Your task to perform on an android device: turn off notifications in google photos Image 0: 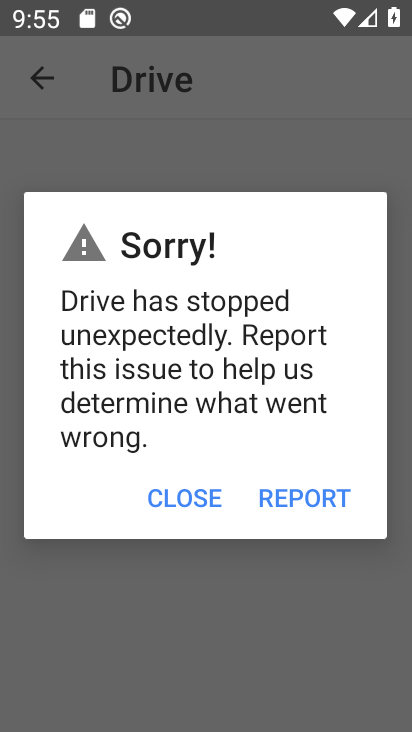
Step 0: press home button
Your task to perform on an android device: turn off notifications in google photos Image 1: 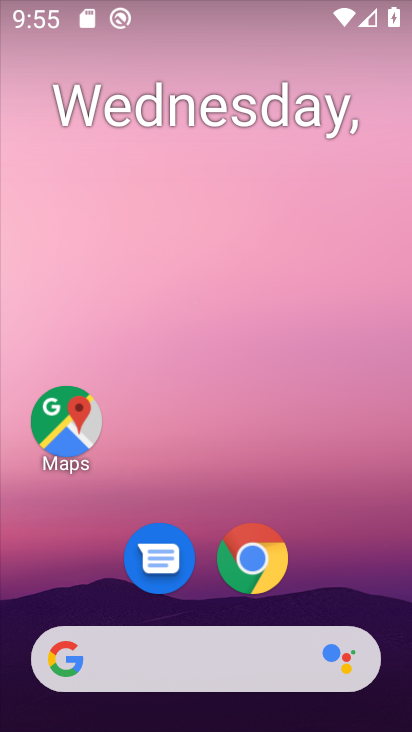
Step 1: drag from (359, 583) to (369, 214)
Your task to perform on an android device: turn off notifications in google photos Image 2: 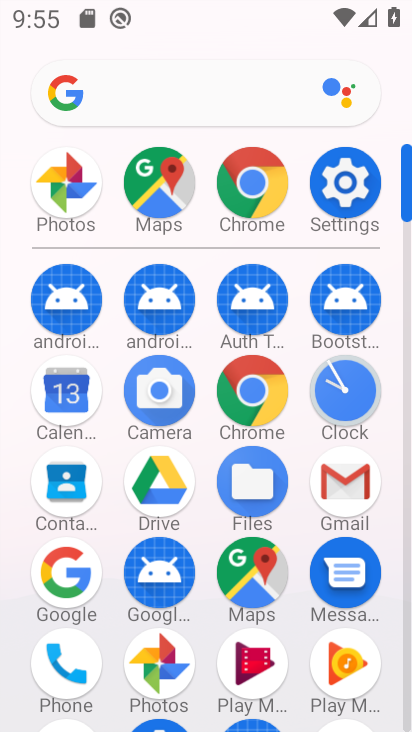
Step 2: click (166, 676)
Your task to perform on an android device: turn off notifications in google photos Image 3: 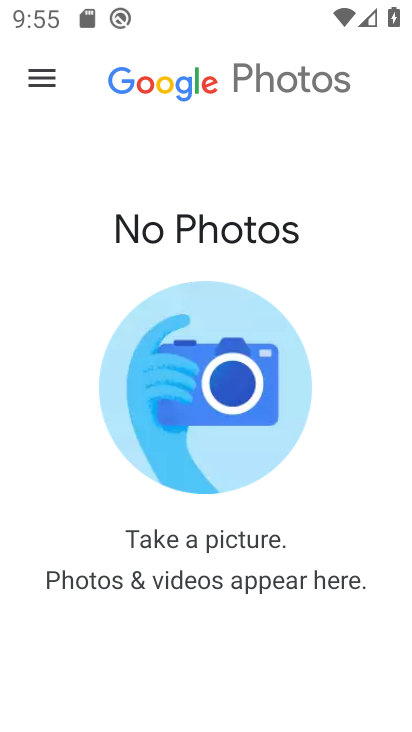
Step 3: click (41, 77)
Your task to perform on an android device: turn off notifications in google photos Image 4: 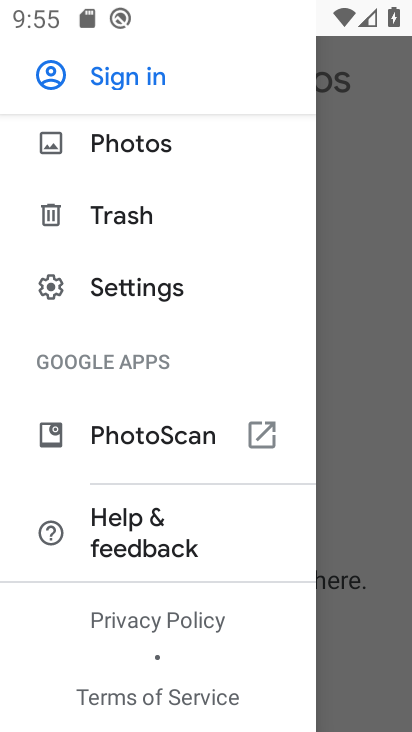
Step 4: click (117, 307)
Your task to perform on an android device: turn off notifications in google photos Image 5: 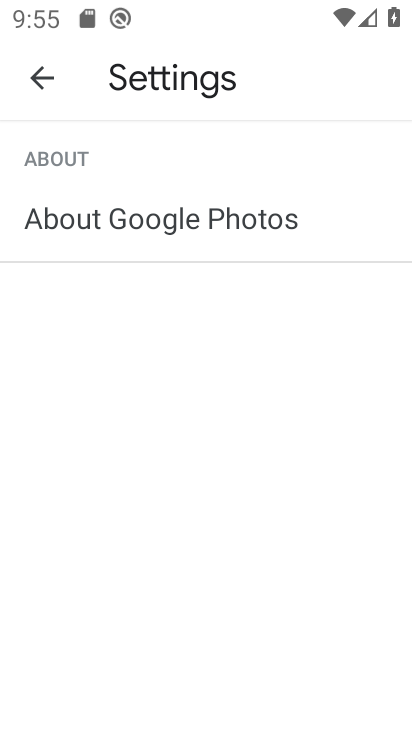
Step 5: task complete